Your task to perform on an android device: Go to wifi settings Image 0: 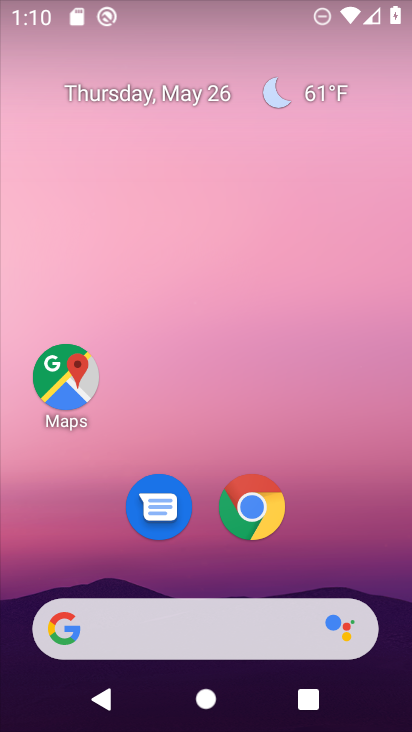
Step 0: drag from (347, 535) to (215, 15)
Your task to perform on an android device: Go to wifi settings Image 1: 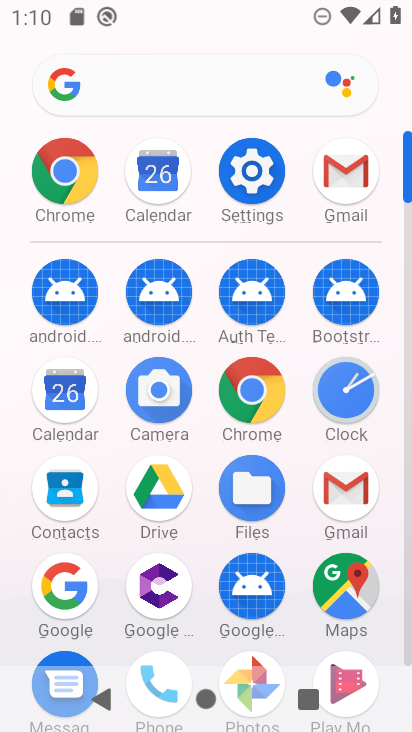
Step 1: click (250, 146)
Your task to perform on an android device: Go to wifi settings Image 2: 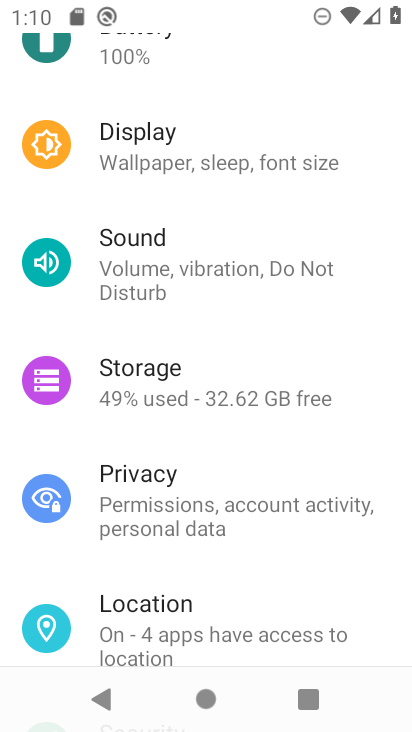
Step 2: drag from (250, 146) to (150, 623)
Your task to perform on an android device: Go to wifi settings Image 3: 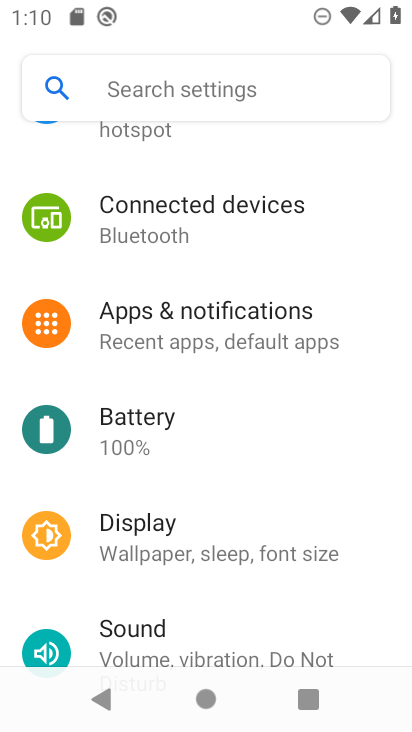
Step 3: drag from (154, 186) to (153, 495)
Your task to perform on an android device: Go to wifi settings Image 4: 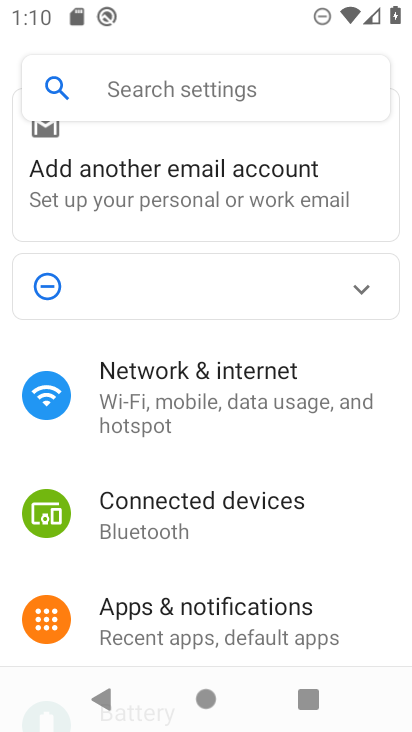
Step 4: click (150, 380)
Your task to perform on an android device: Go to wifi settings Image 5: 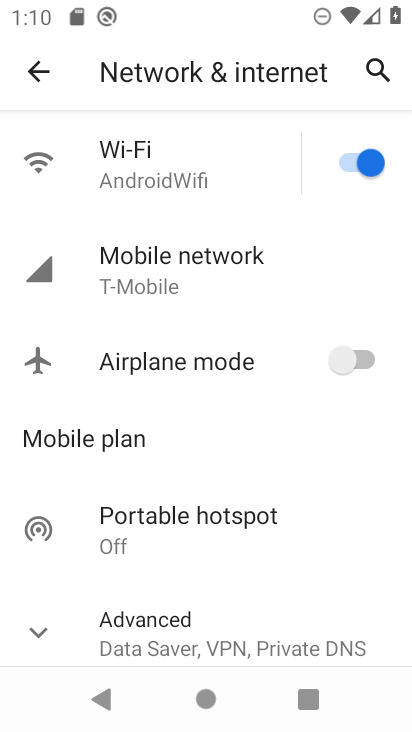
Step 5: click (253, 170)
Your task to perform on an android device: Go to wifi settings Image 6: 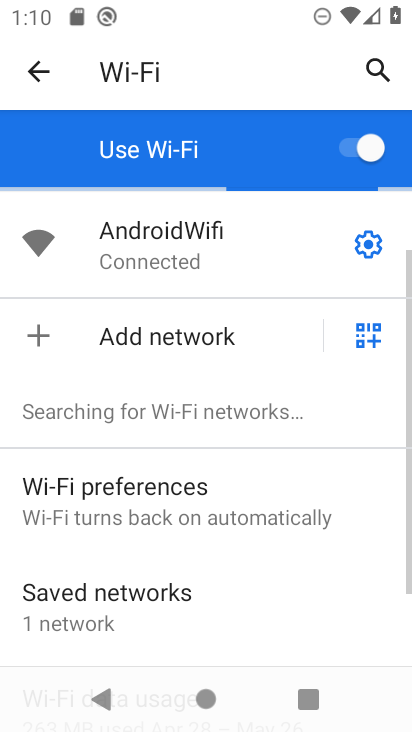
Step 6: task complete